Your task to perform on an android device: set the stopwatch Image 0: 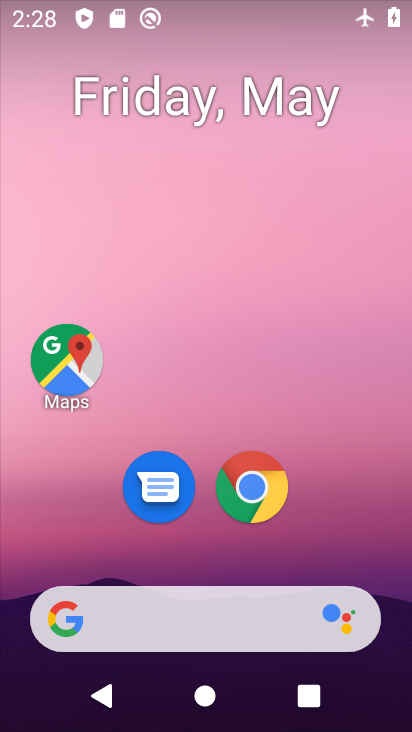
Step 0: drag from (250, 531) to (244, 73)
Your task to perform on an android device: set the stopwatch Image 1: 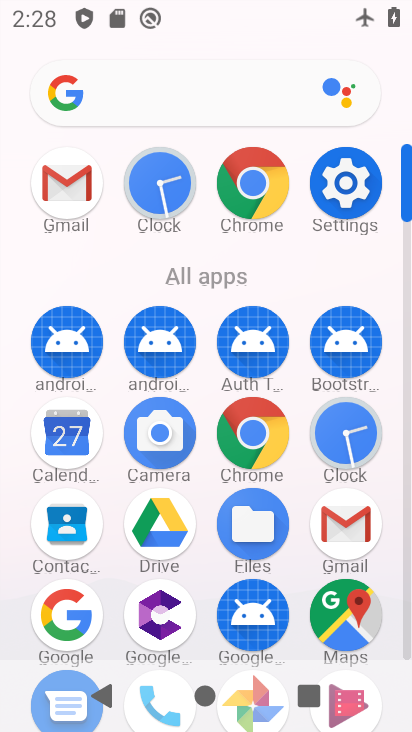
Step 1: click (172, 177)
Your task to perform on an android device: set the stopwatch Image 2: 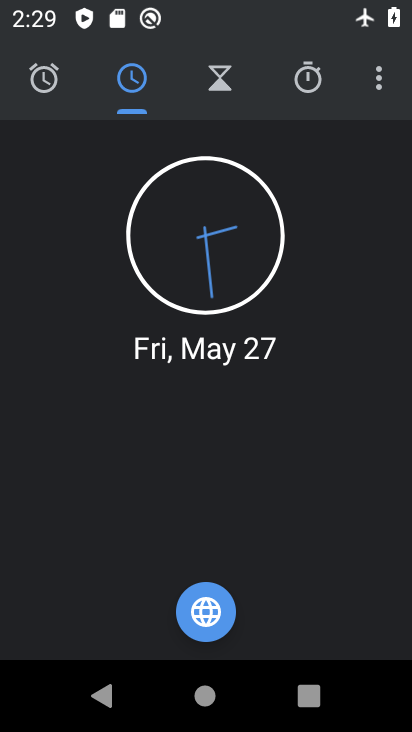
Step 2: click (297, 71)
Your task to perform on an android device: set the stopwatch Image 3: 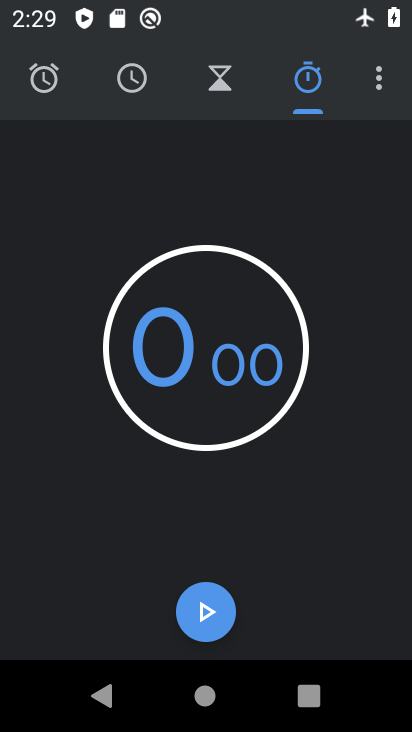
Step 3: click (215, 363)
Your task to perform on an android device: set the stopwatch Image 4: 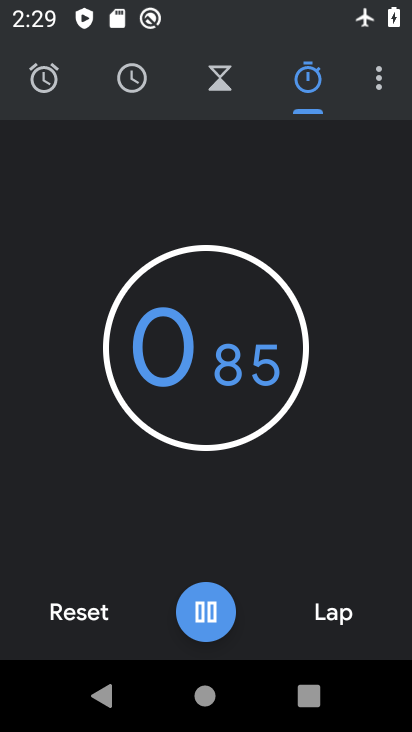
Step 4: click (215, 363)
Your task to perform on an android device: set the stopwatch Image 5: 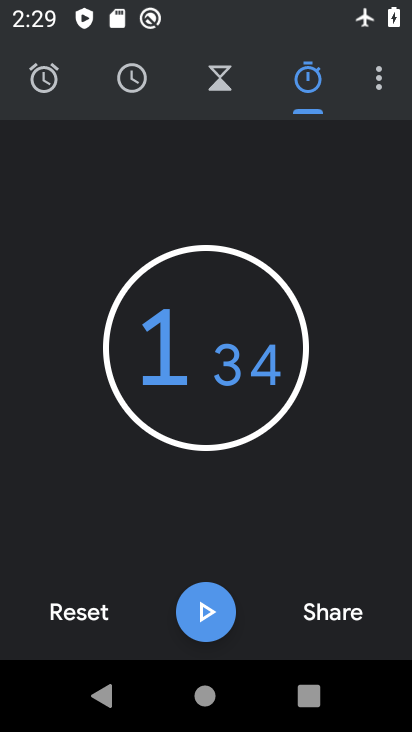
Step 5: task complete